Your task to perform on an android device: toggle location history Image 0: 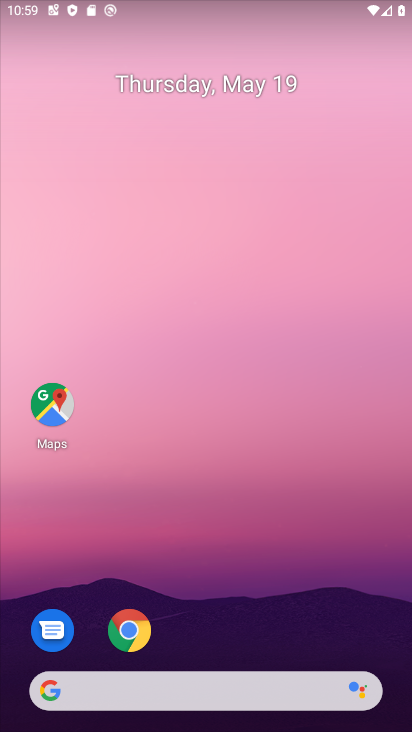
Step 0: drag from (228, 574) to (210, 124)
Your task to perform on an android device: toggle location history Image 1: 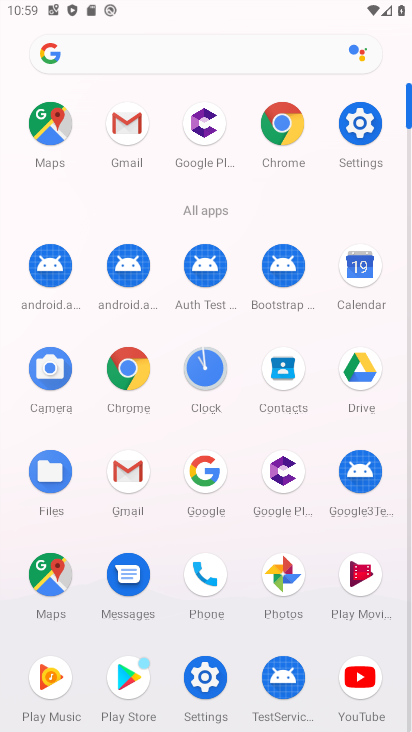
Step 1: click (361, 122)
Your task to perform on an android device: toggle location history Image 2: 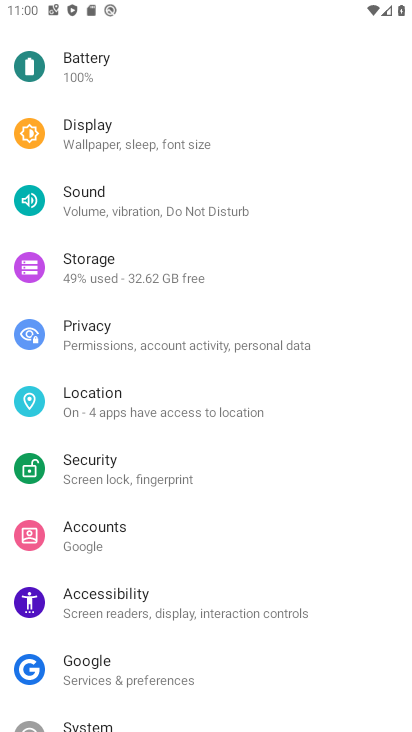
Step 2: click (97, 394)
Your task to perform on an android device: toggle location history Image 3: 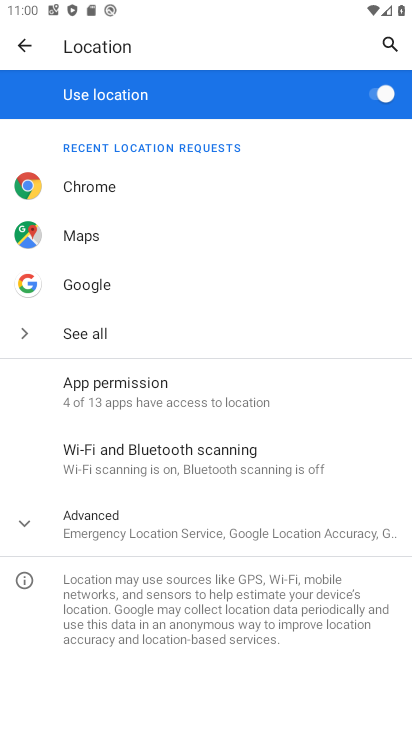
Step 3: click (137, 531)
Your task to perform on an android device: toggle location history Image 4: 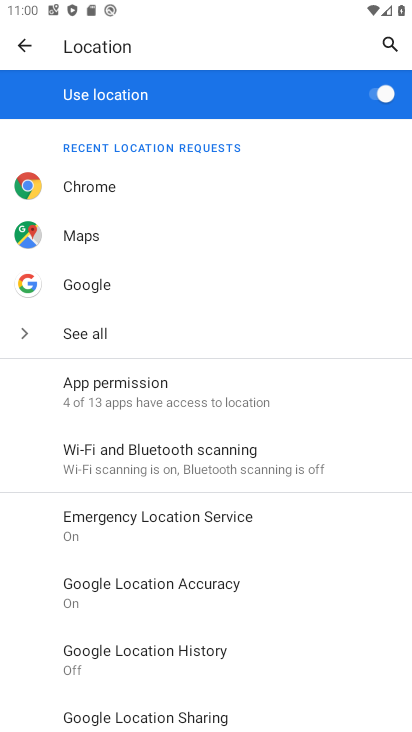
Step 4: click (150, 651)
Your task to perform on an android device: toggle location history Image 5: 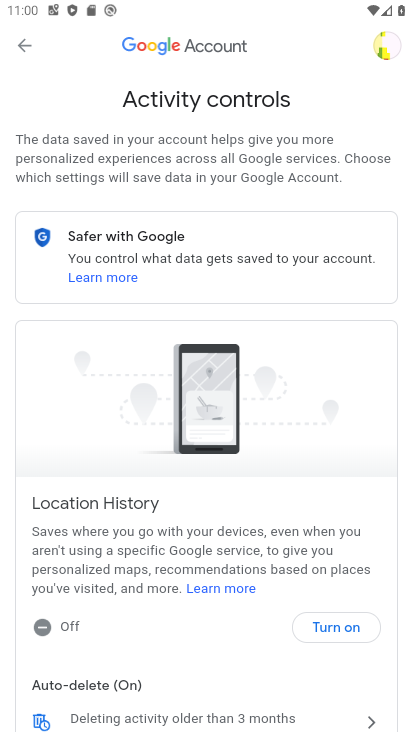
Step 5: click (339, 630)
Your task to perform on an android device: toggle location history Image 6: 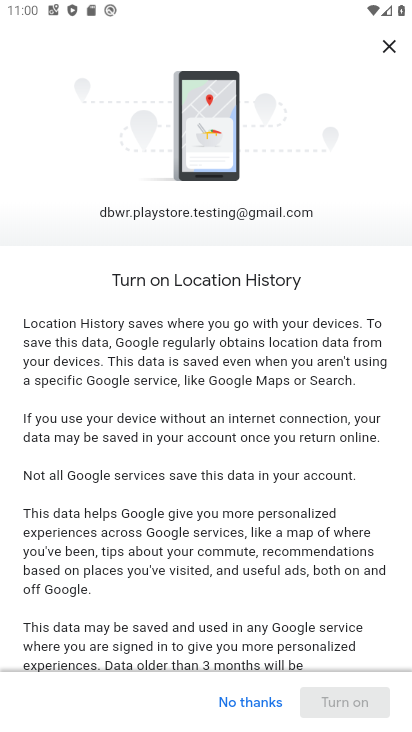
Step 6: drag from (313, 608) to (293, 477)
Your task to perform on an android device: toggle location history Image 7: 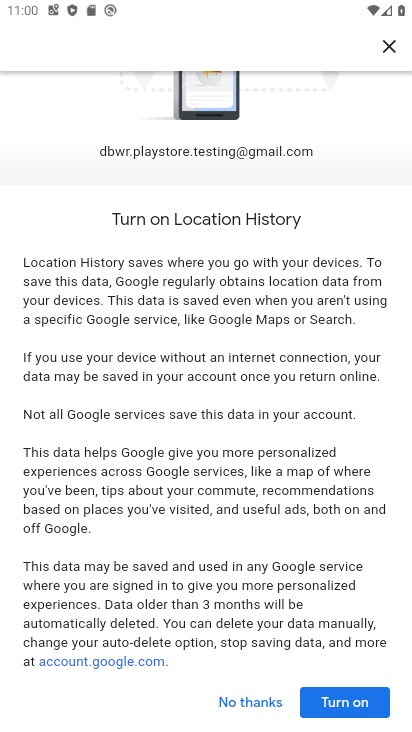
Step 7: click (334, 701)
Your task to perform on an android device: toggle location history Image 8: 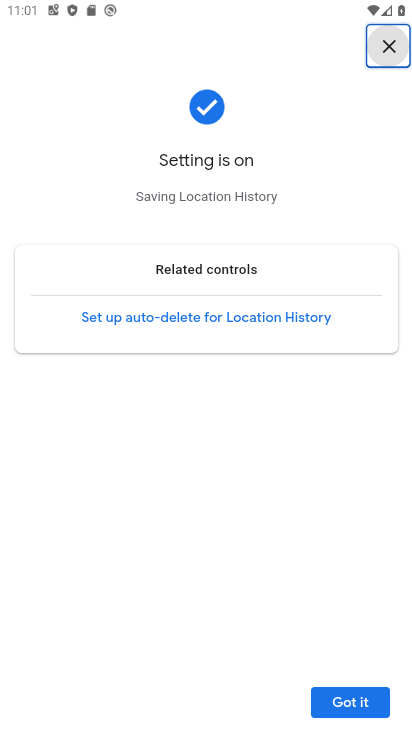
Step 8: click (334, 701)
Your task to perform on an android device: toggle location history Image 9: 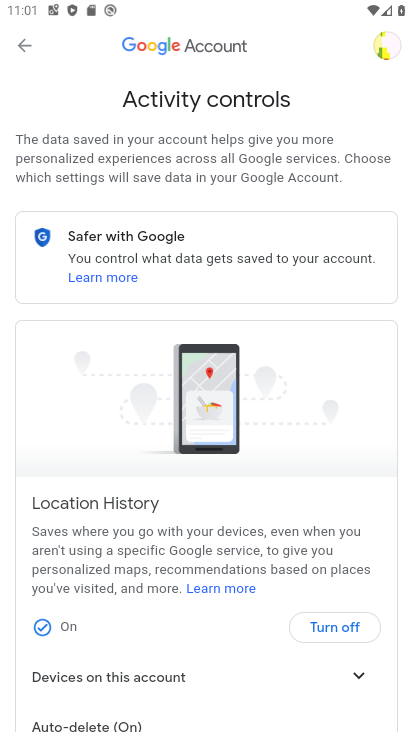
Step 9: task complete